Your task to perform on an android device: Do I have any events today? Image 0: 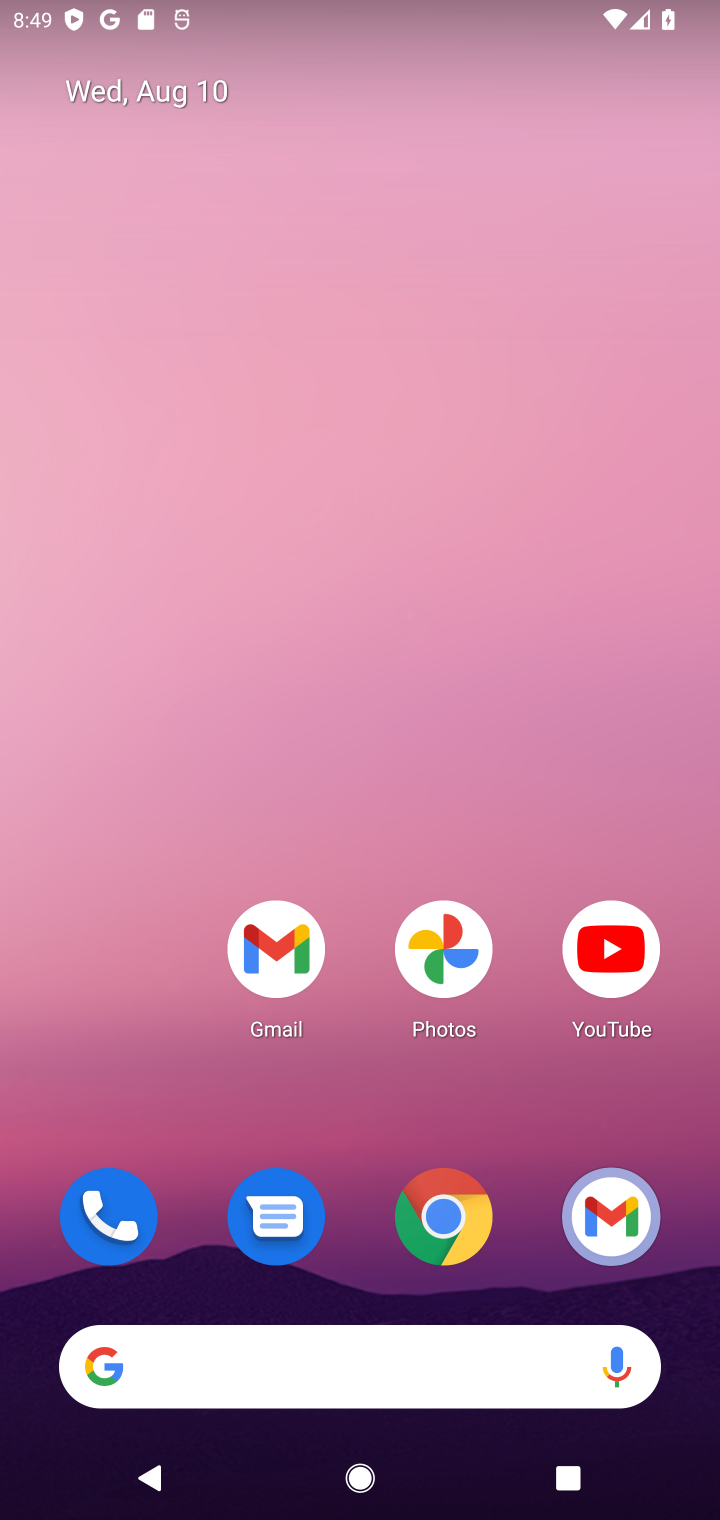
Step 0: drag from (187, 643) to (352, 257)
Your task to perform on an android device: Do I have any events today? Image 1: 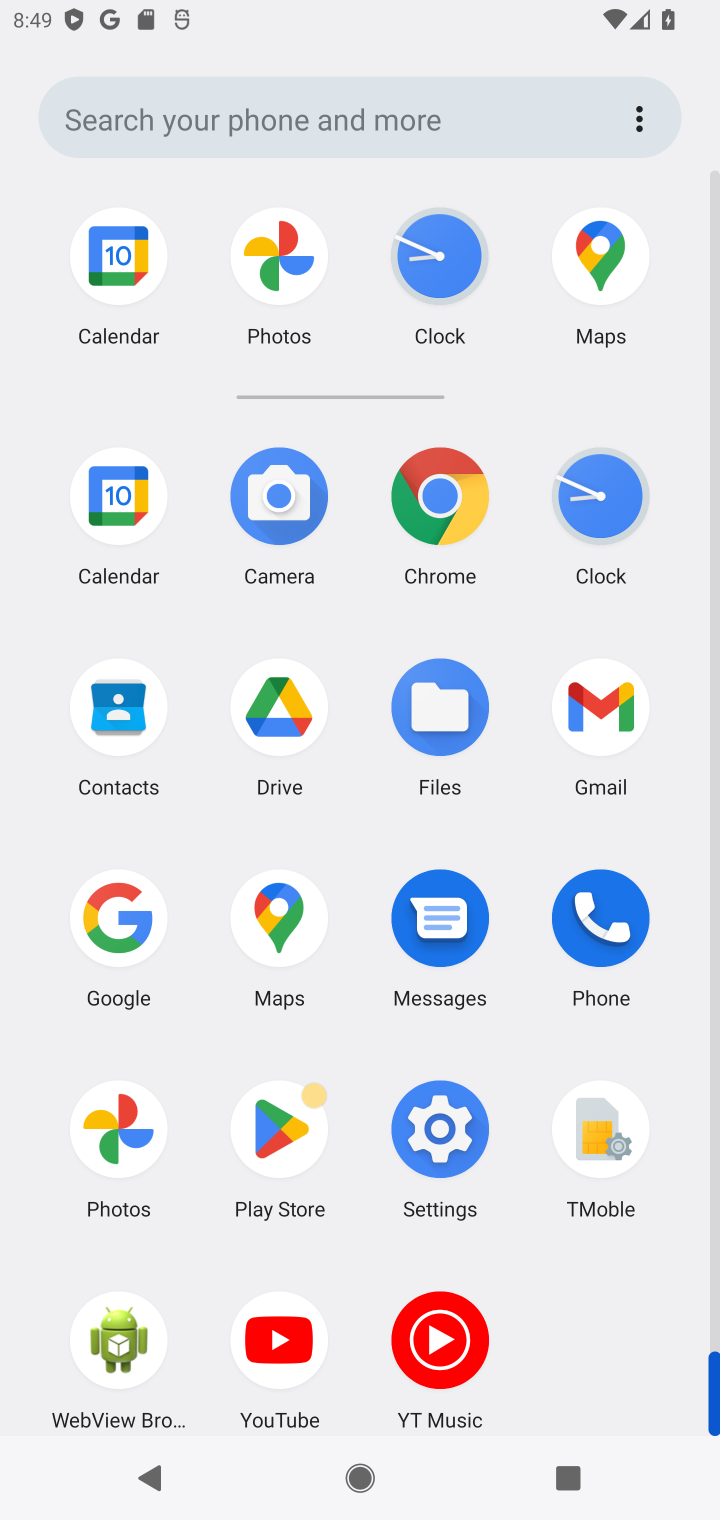
Step 1: click (127, 517)
Your task to perform on an android device: Do I have any events today? Image 2: 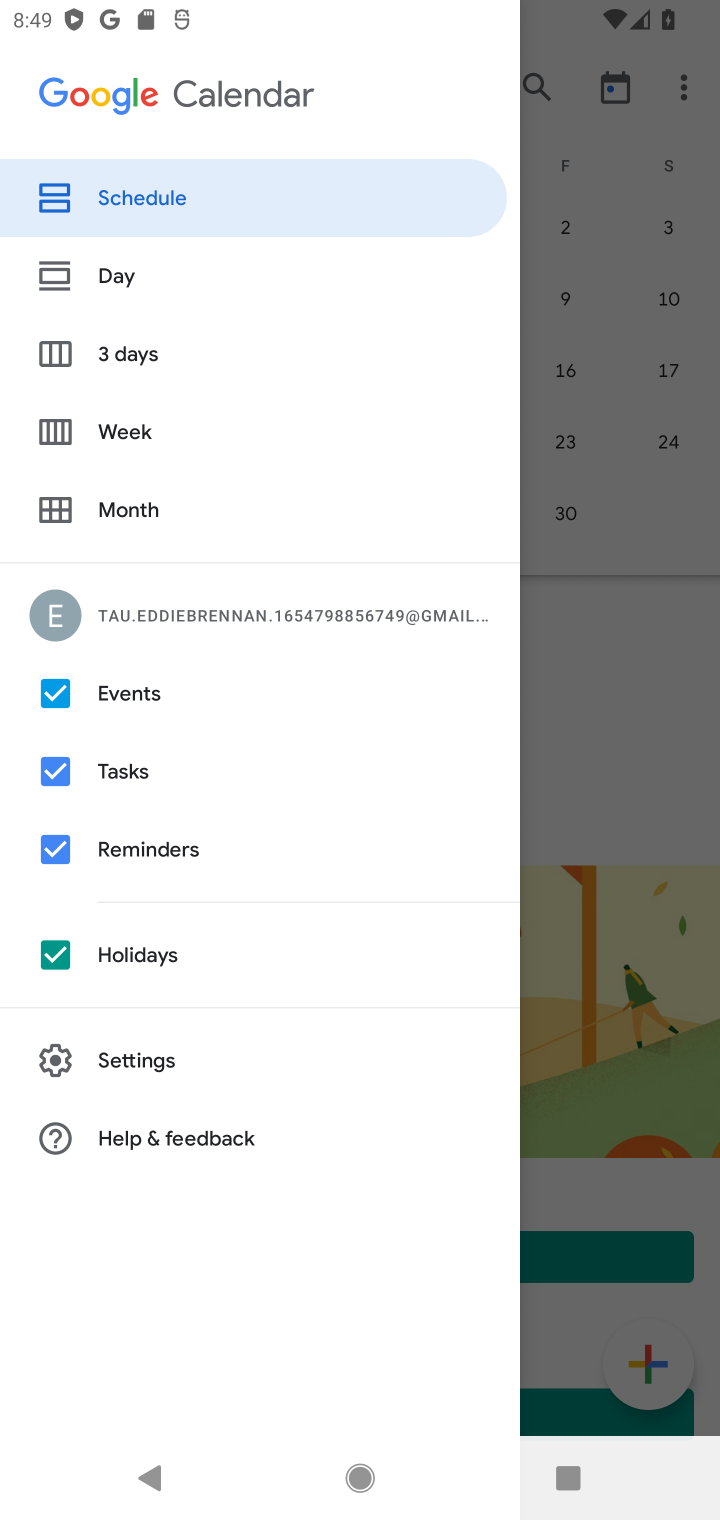
Step 2: click (544, 631)
Your task to perform on an android device: Do I have any events today? Image 3: 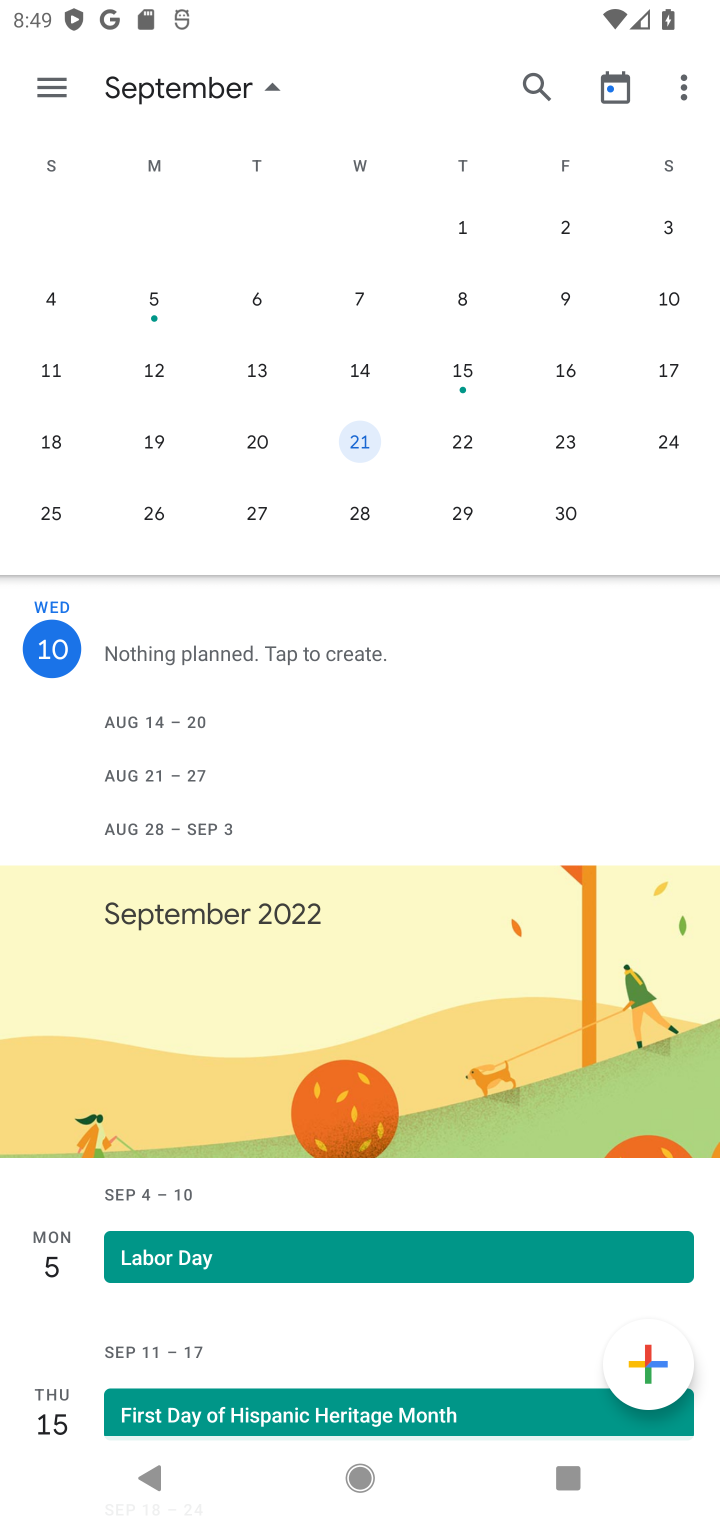
Step 3: drag from (49, 364) to (714, 477)
Your task to perform on an android device: Do I have any events today? Image 4: 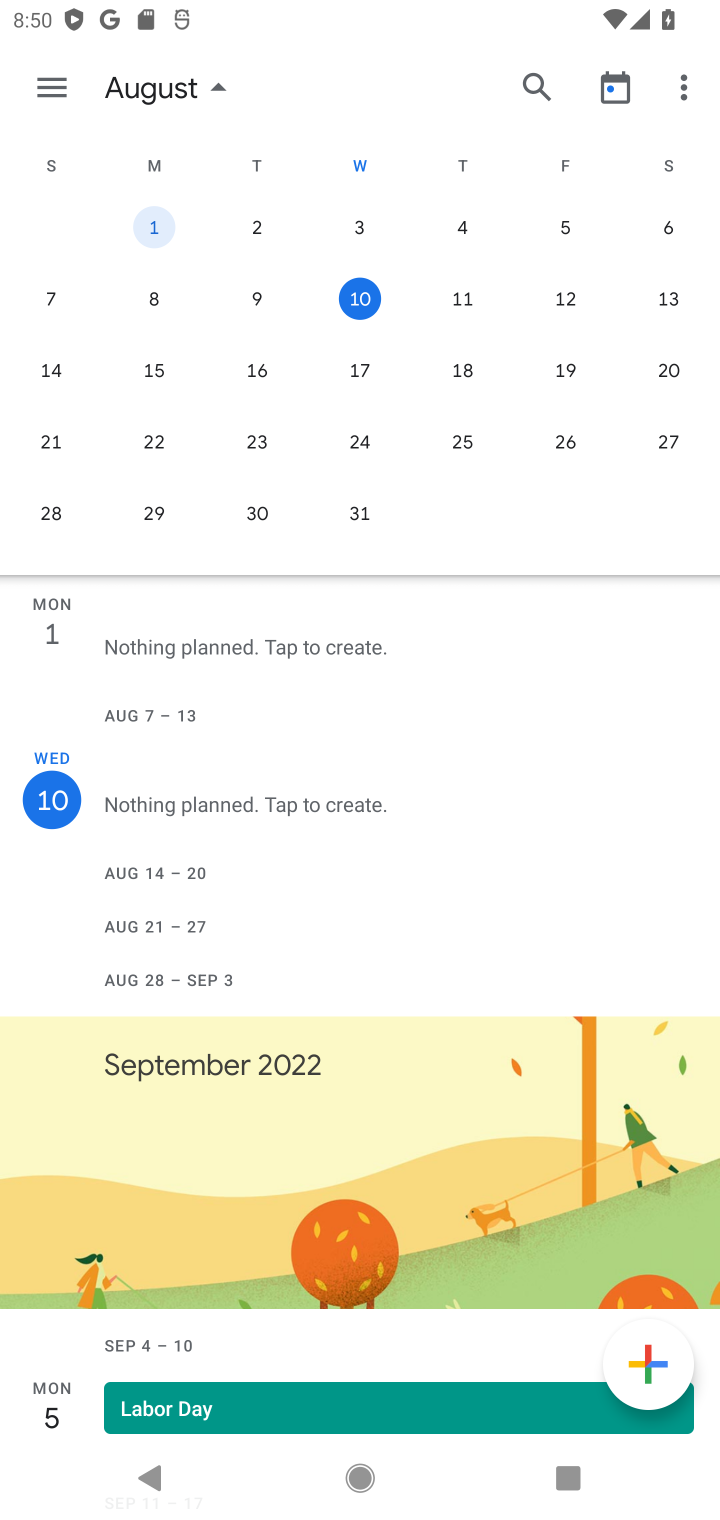
Step 4: click (345, 298)
Your task to perform on an android device: Do I have any events today? Image 5: 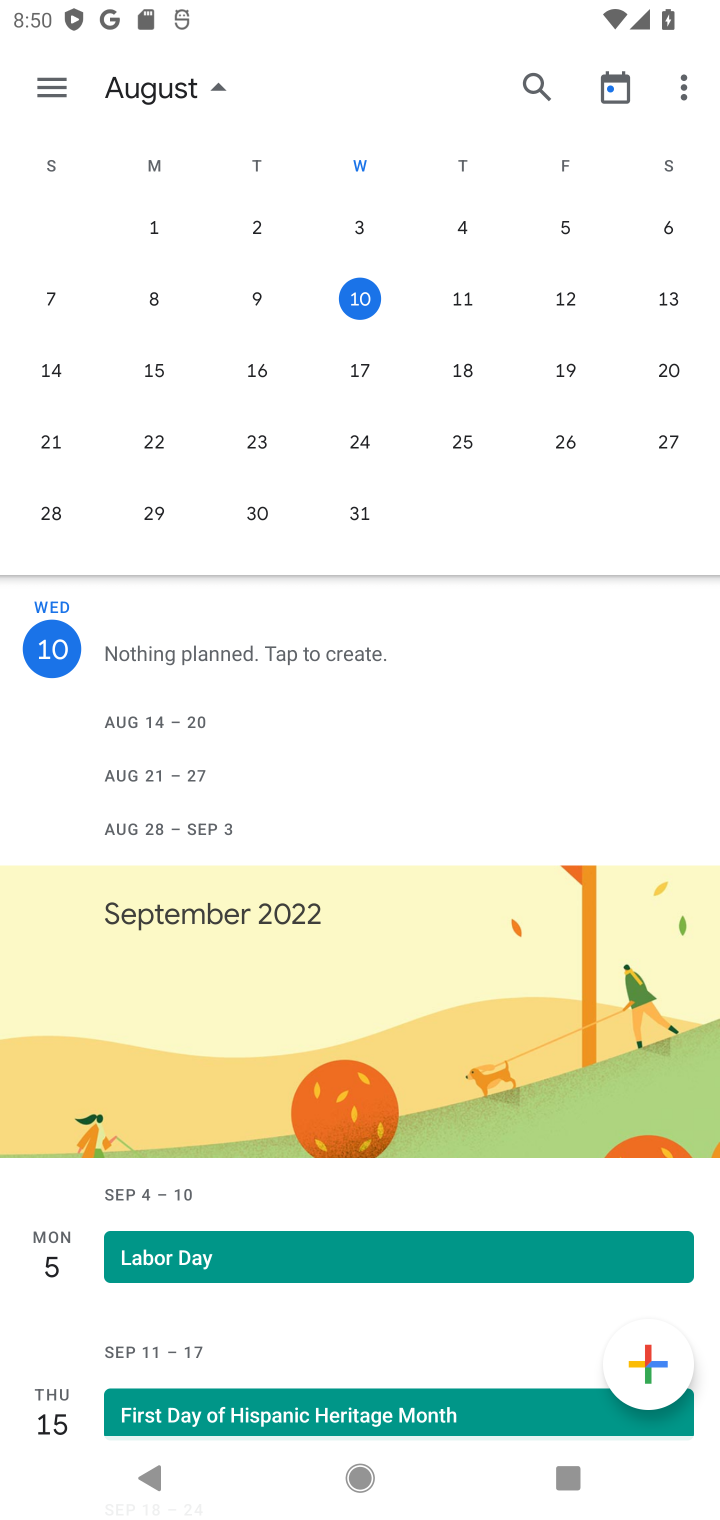
Step 5: task complete